Your task to perform on an android device: turn off notifications settings in the gmail app Image 0: 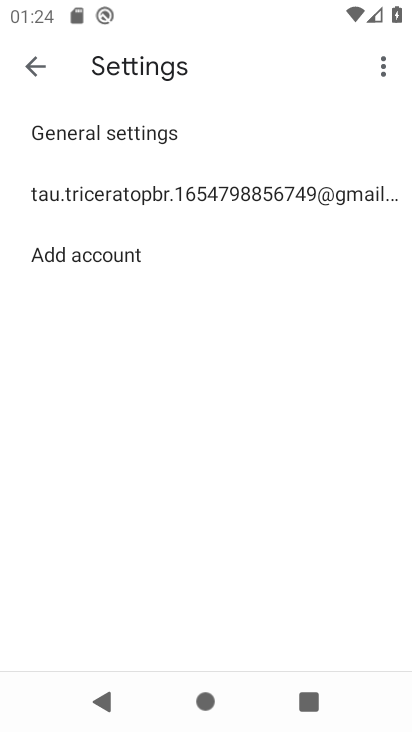
Step 0: press home button
Your task to perform on an android device: turn off notifications settings in the gmail app Image 1: 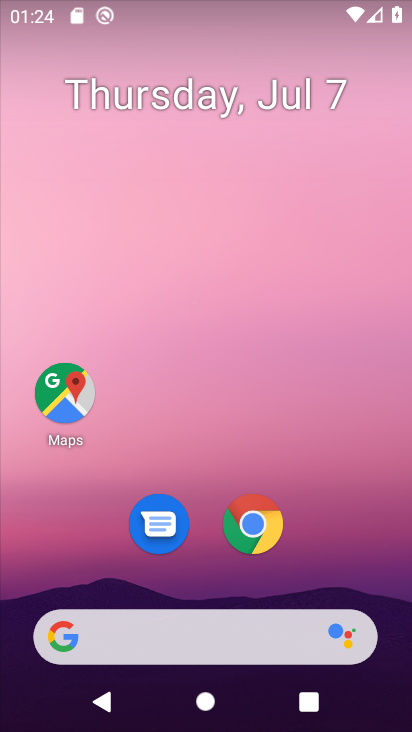
Step 1: drag from (311, 539) to (351, 31)
Your task to perform on an android device: turn off notifications settings in the gmail app Image 2: 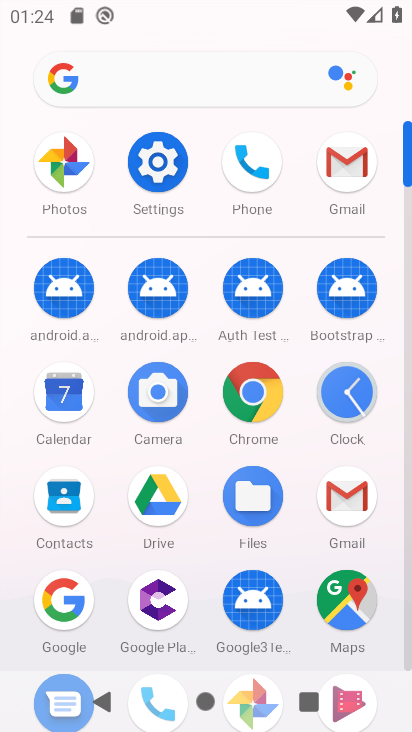
Step 2: click (340, 165)
Your task to perform on an android device: turn off notifications settings in the gmail app Image 3: 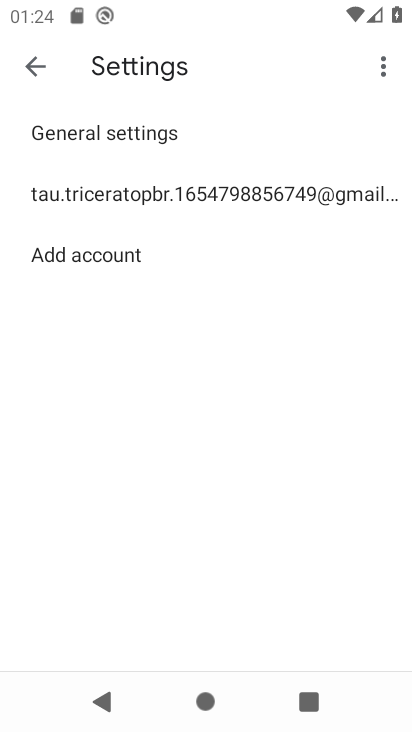
Step 3: click (162, 128)
Your task to perform on an android device: turn off notifications settings in the gmail app Image 4: 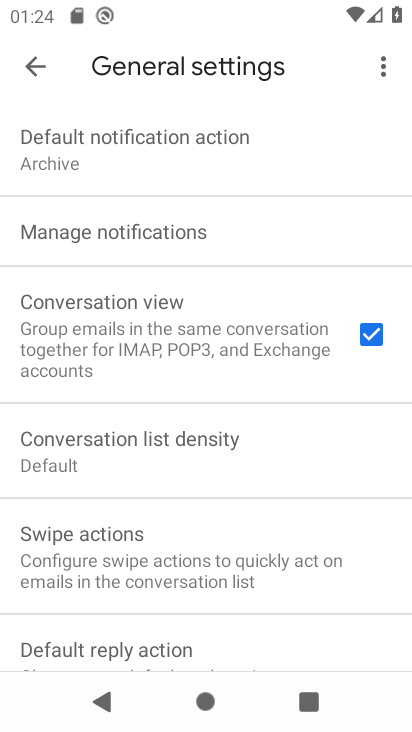
Step 4: click (220, 230)
Your task to perform on an android device: turn off notifications settings in the gmail app Image 5: 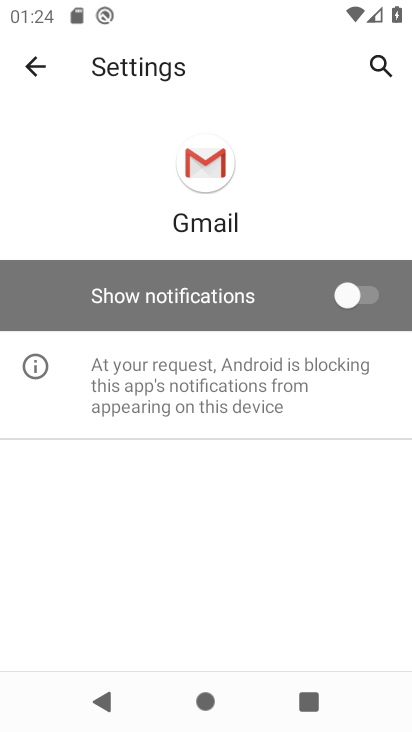
Step 5: click (357, 291)
Your task to perform on an android device: turn off notifications settings in the gmail app Image 6: 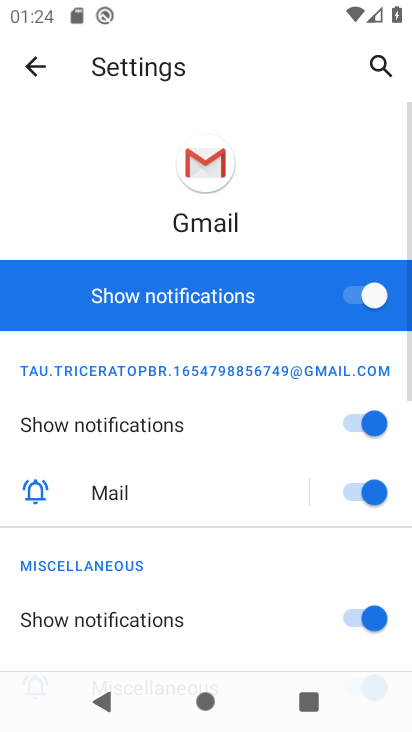
Step 6: task complete